Your task to perform on an android device: check battery use Image 0: 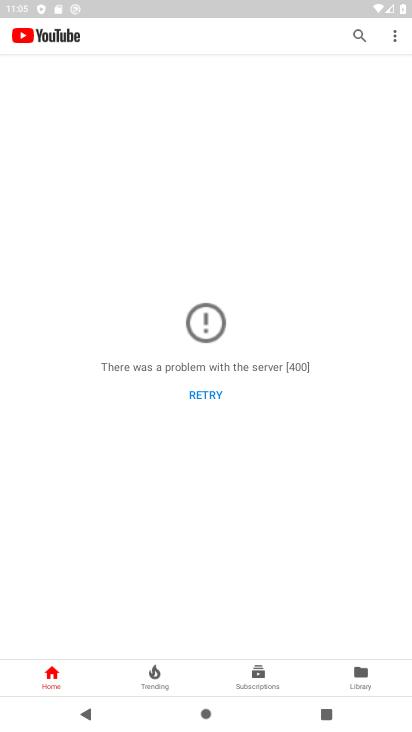
Step 0: press home button
Your task to perform on an android device: check battery use Image 1: 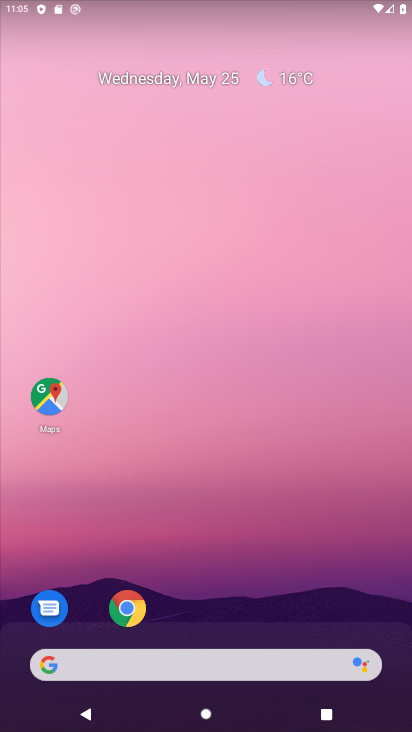
Step 1: drag from (251, 448) to (299, 87)
Your task to perform on an android device: check battery use Image 2: 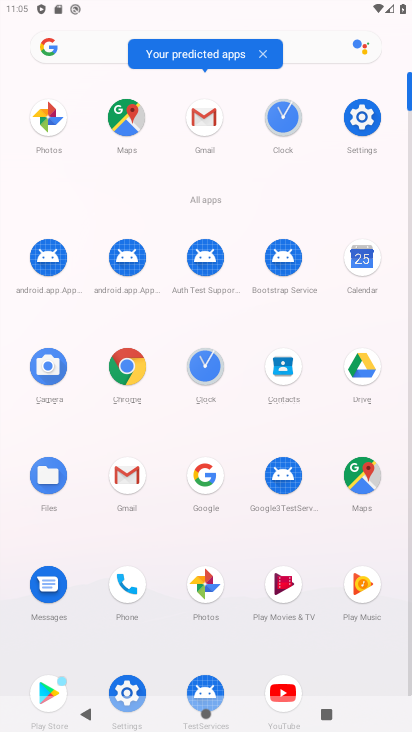
Step 2: click (363, 117)
Your task to perform on an android device: check battery use Image 3: 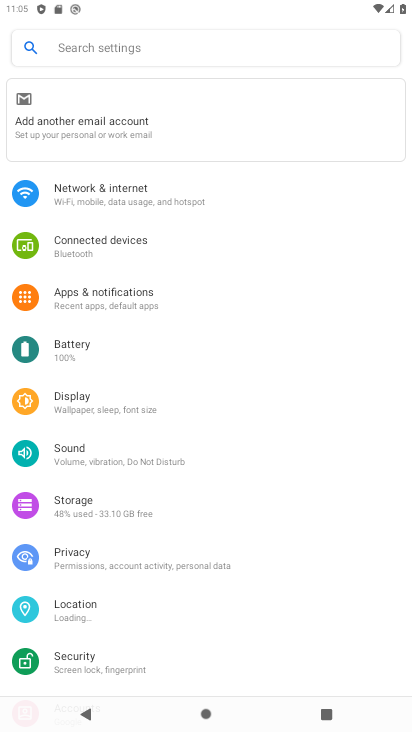
Step 3: click (73, 334)
Your task to perform on an android device: check battery use Image 4: 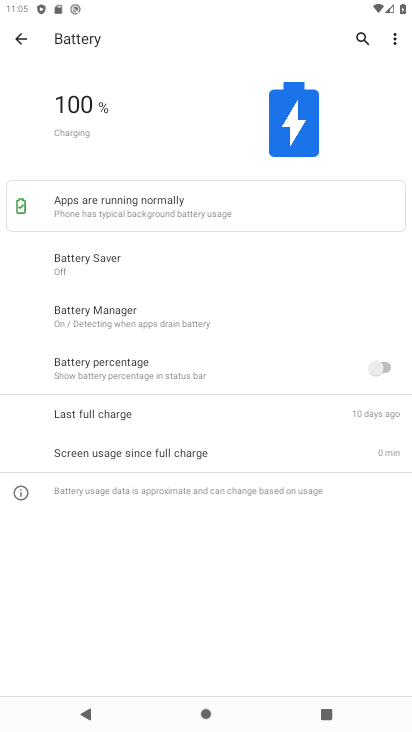
Step 4: drag from (395, 34) to (351, 79)
Your task to perform on an android device: check battery use Image 5: 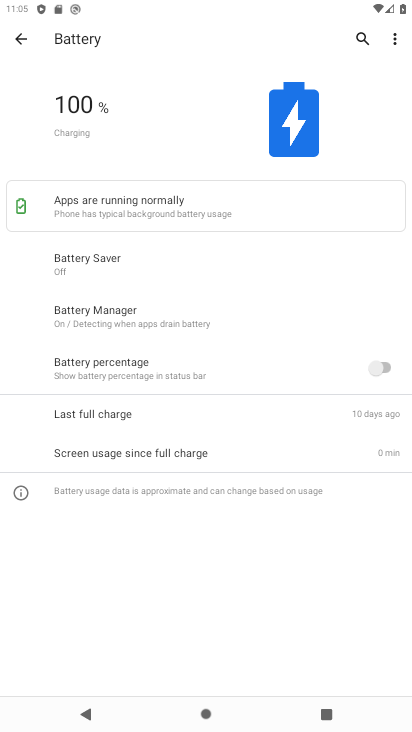
Step 5: click (392, 40)
Your task to perform on an android device: check battery use Image 6: 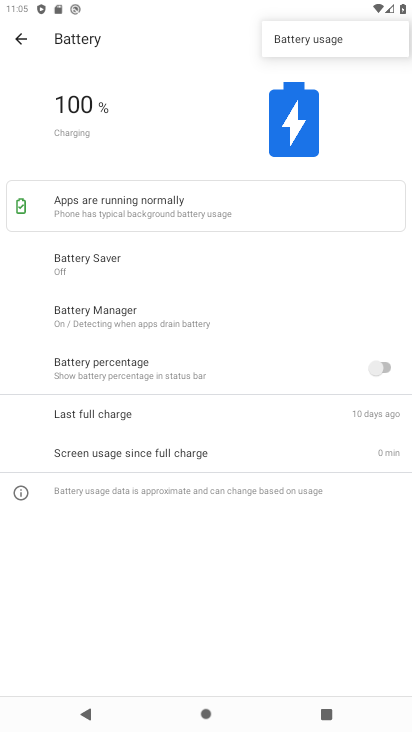
Step 6: click (353, 40)
Your task to perform on an android device: check battery use Image 7: 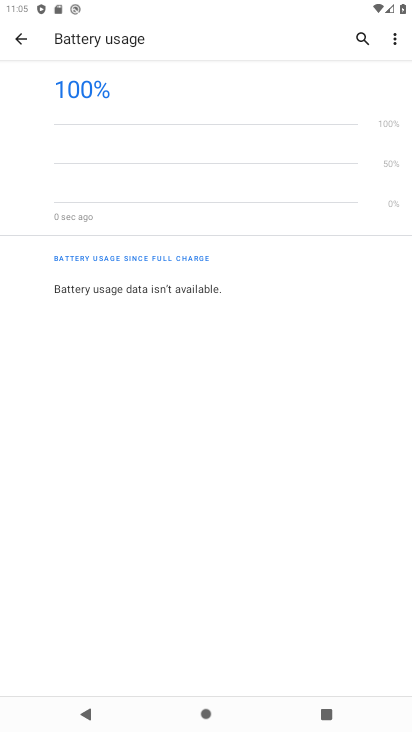
Step 7: task complete